Your task to perform on an android device: What is the recent news? Image 0: 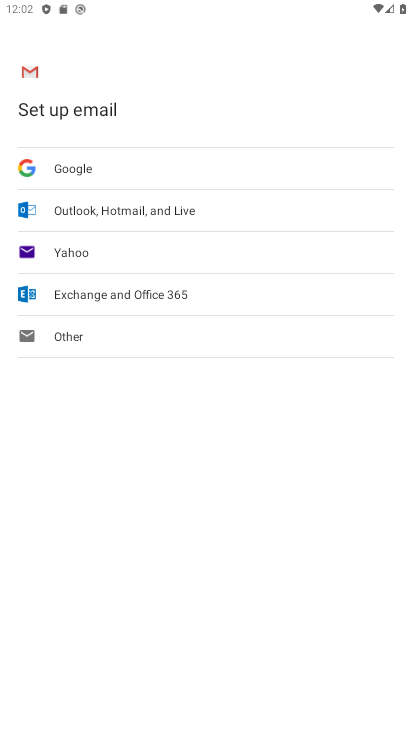
Step 0: press home button
Your task to perform on an android device: What is the recent news? Image 1: 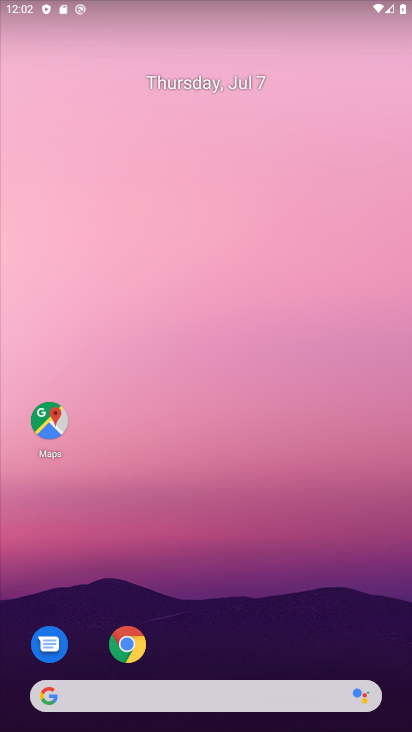
Step 1: task complete